Your task to perform on an android device: check out phone information Image 0: 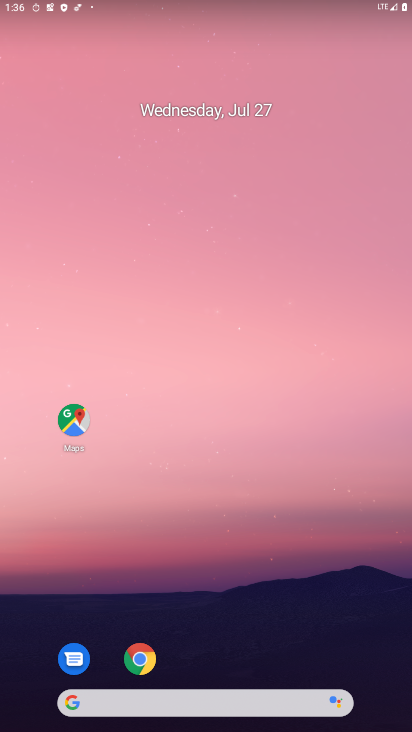
Step 0: drag from (244, 660) to (254, 84)
Your task to perform on an android device: check out phone information Image 1: 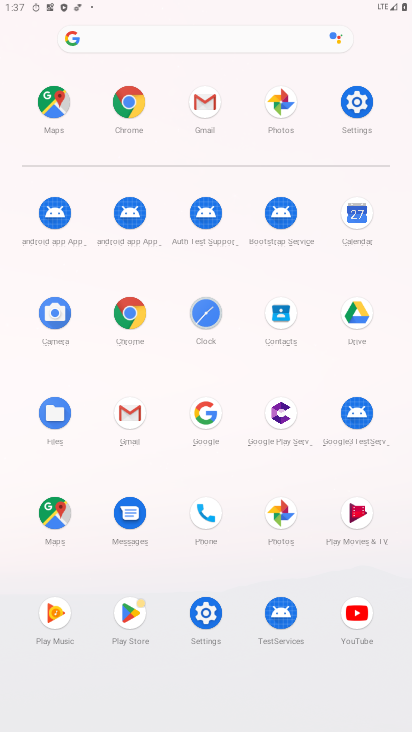
Step 1: click (206, 505)
Your task to perform on an android device: check out phone information Image 2: 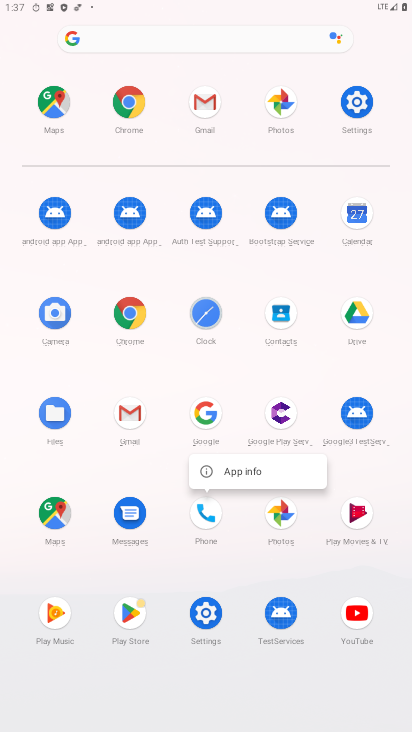
Step 2: click (256, 466)
Your task to perform on an android device: check out phone information Image 3: 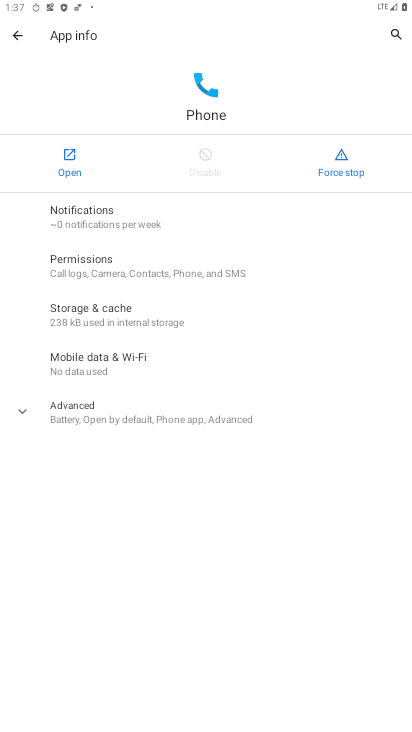
Step 3: task complete